Your task to perform on an android device: change keyboard looks Image 0: 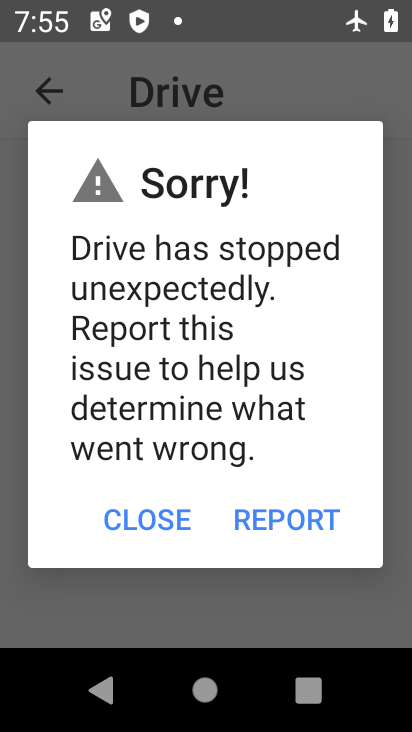
Step 0: press home button
Your task to perform on an android device: change keyboard looks Image 1: 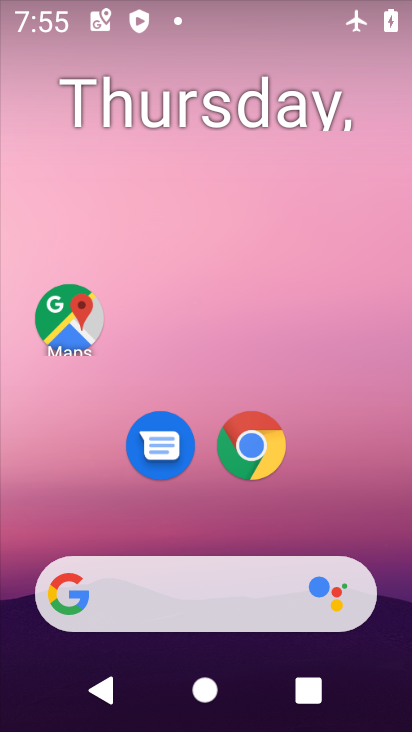
Step 1: drag from (390, 619) to (285, 52)
Your task to perform on an android device: change keyboard looks Image 2: 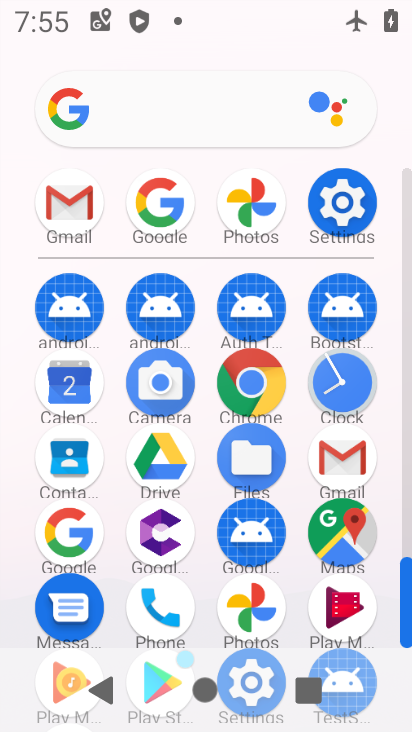
Step 2: click (336, 197)
Your task to perform on an android device: change keyboard looks Image 3: 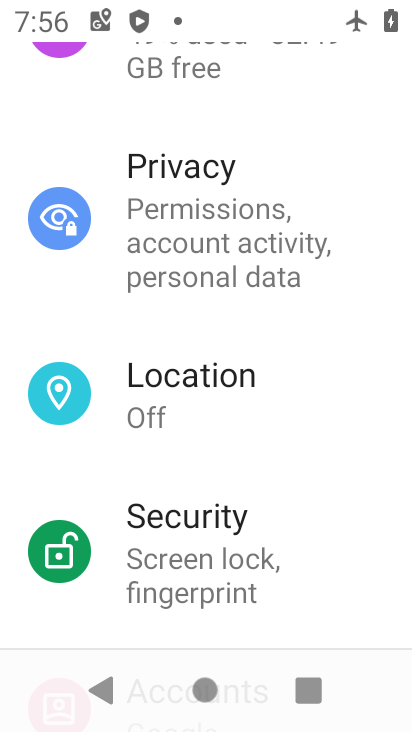
Step 3: drag from (270, 586) to (293, 59)
Your task to perform on an android device: change keyboard looks Image 4: 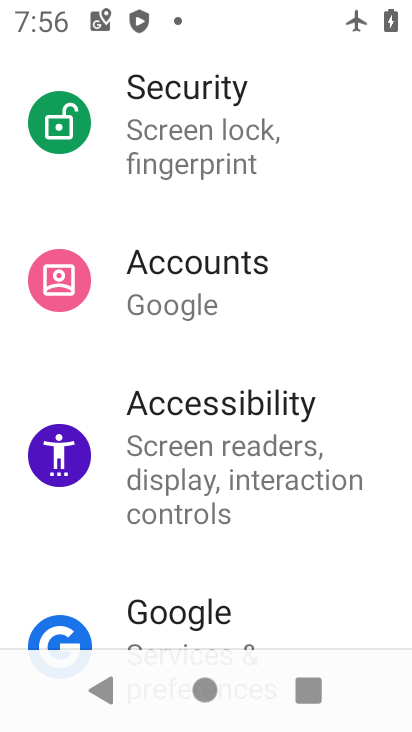
Step 4: click (216, 75)
Your task to perform on an android device: change keyboard looks Image 5: 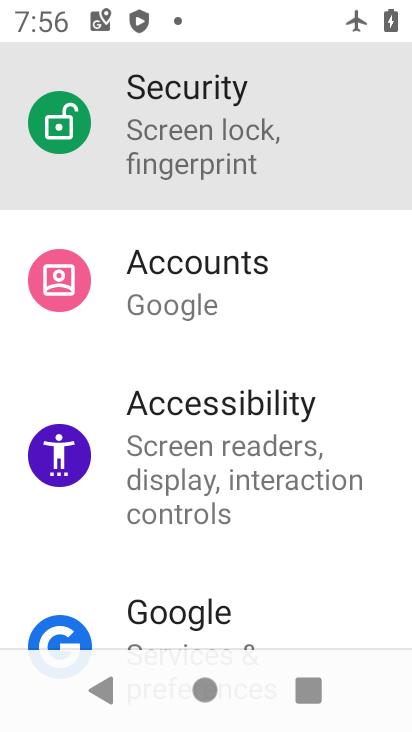
Step 5: drag from (278, 530) to (258, 92)
Your task to perform on an android device: change keyboard looks Image 6: 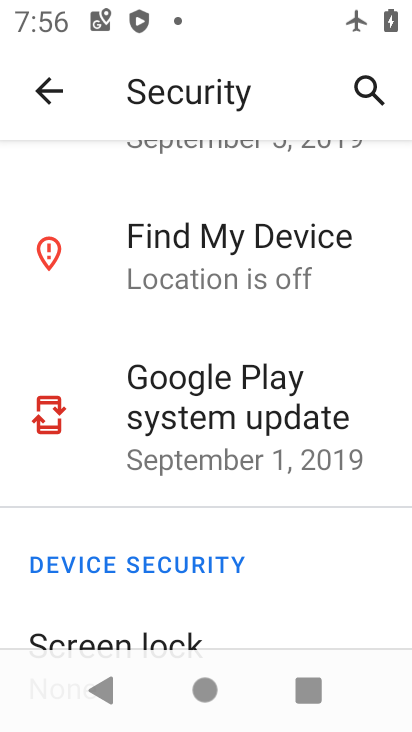
Step 6: press back button
Your task to perform on an android device: change keyboard looks Image 7: 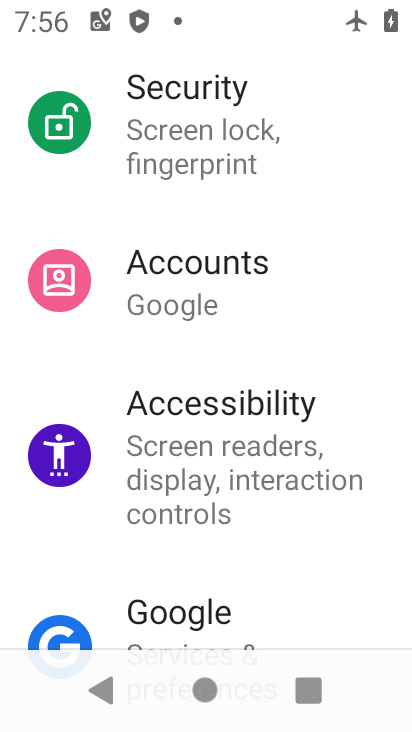
Step 7: drag from (362, 619) to (316, 32)
Your task to perform on an android device: change keyboard looks Image 8: 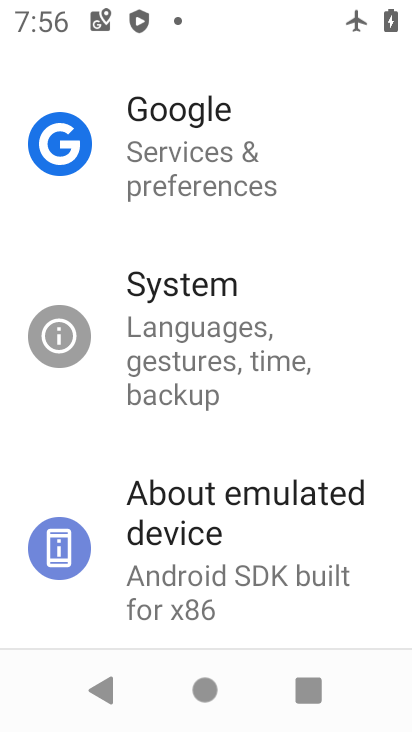
Step 8: click (190, 535)
Your task to perform on an android device: change keyboard looks Image 9: 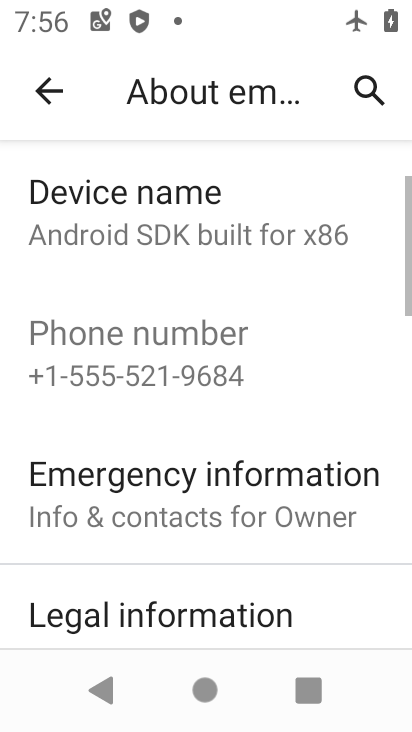
Step 9: press back button
Your task to perform on an android device: change keyboard looks Image 10: 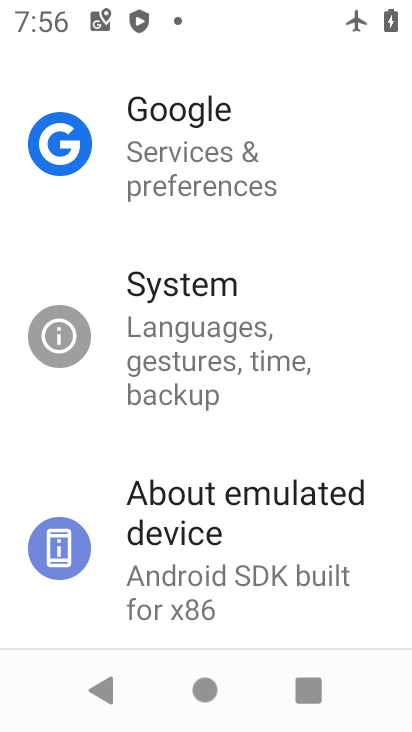
Step 10: click (252, 363)
Your task to perform on an android device: change keyboard looks Image 11: 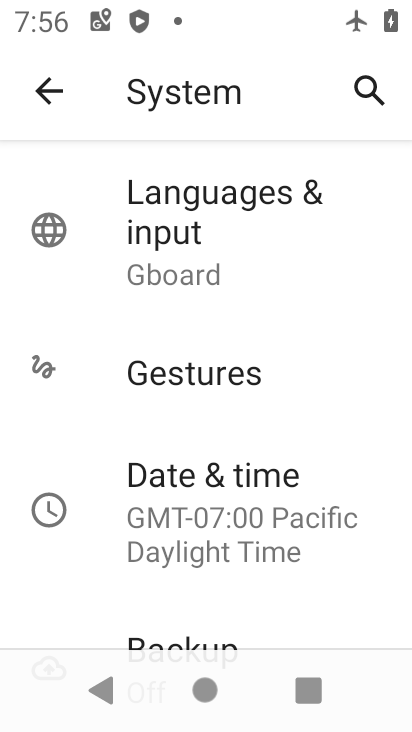
Step 11: click (197, 240)
Your task to perform on an android device: change keyboard looks Image 12: 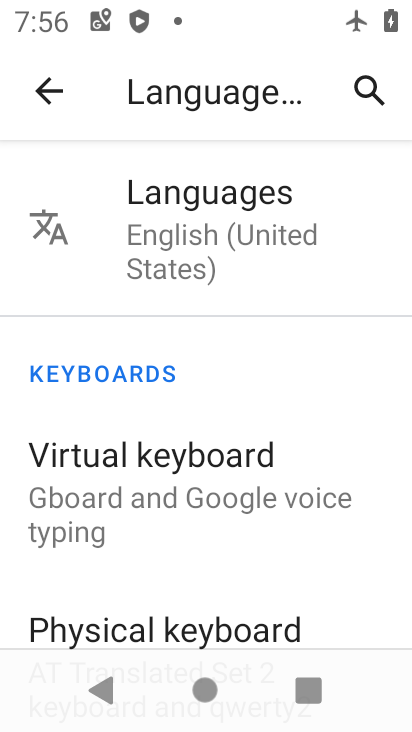
Step 12: click (208, 453)
Your task to perform on an android device: change keyboard looks Image 13: 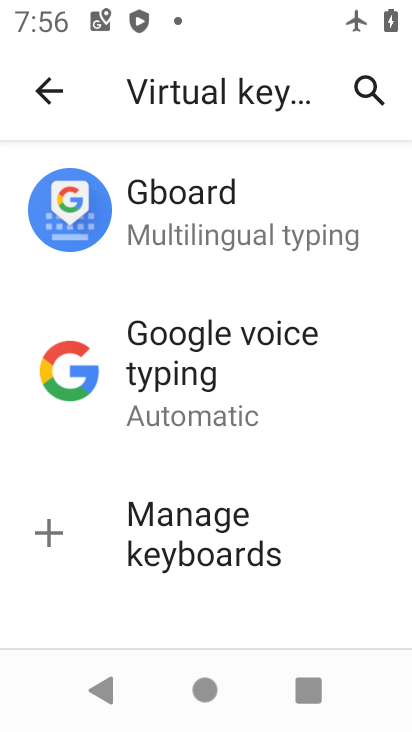
Step 13: click (163, 235)
Your task to perform on an android device: change keyboard looks Image 14: 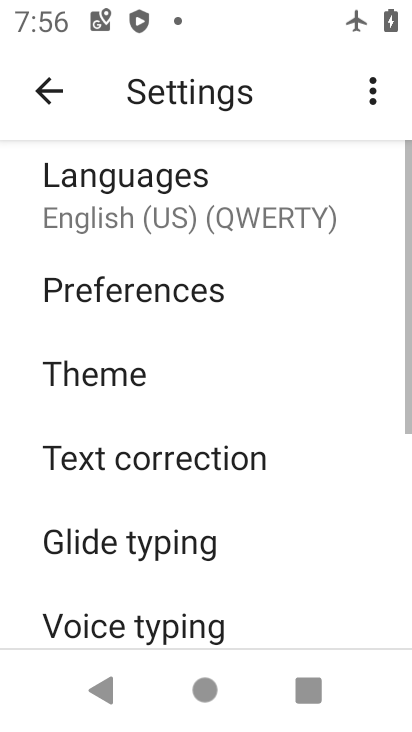
Step 14: click (152, 369)
Your task to perform on an android device: change keyboard looks Image 15: 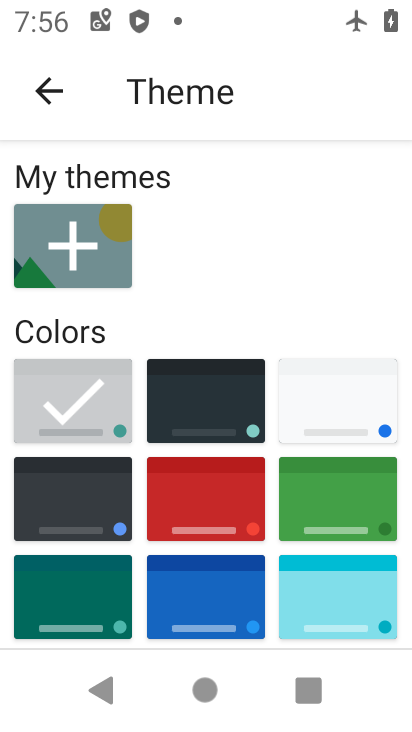
Step 15: click (234, 401)
Your task to perform on an android device: change keyboard looks Image 16: 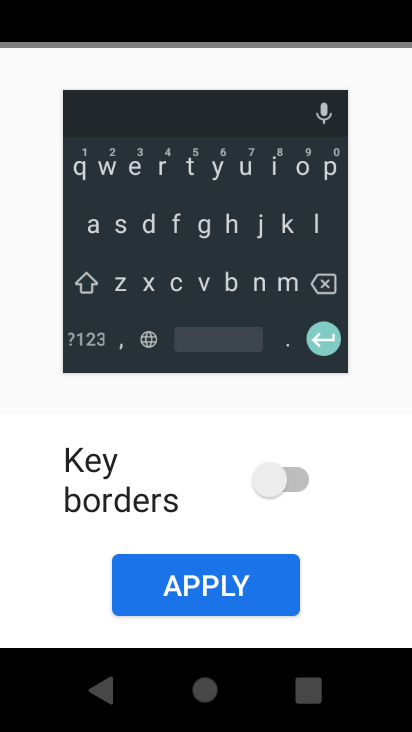
Step 16: click (208, 585)
Your task to perform on an android device: change keyboard looks Image 17: 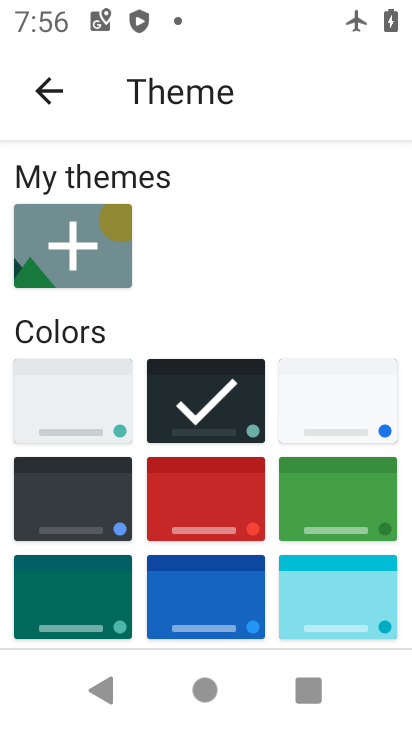
Step 17: task complete